Your task to perform on an android device: Open Yahoo.com Image 0: 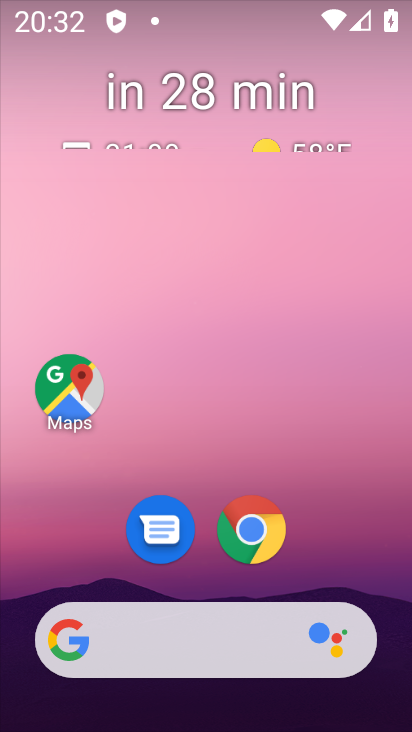
Step 0: click (246, 537)
Your task to perform on an android device: Open Yahoo.com Image 1: 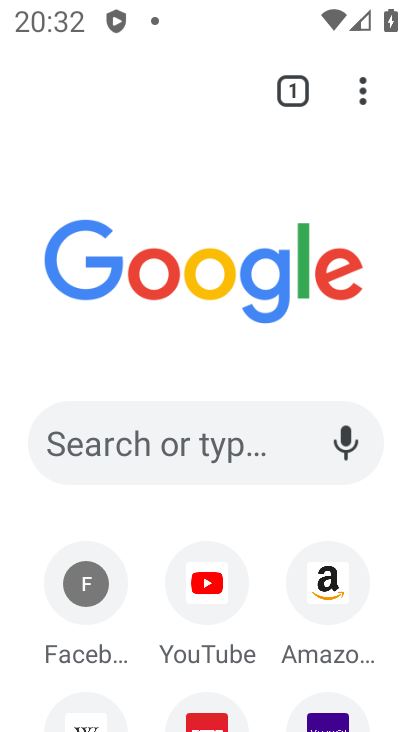
Step 1: click (320, 711)
Your task to perform on an android device: Open Yahoo.com Image 2: 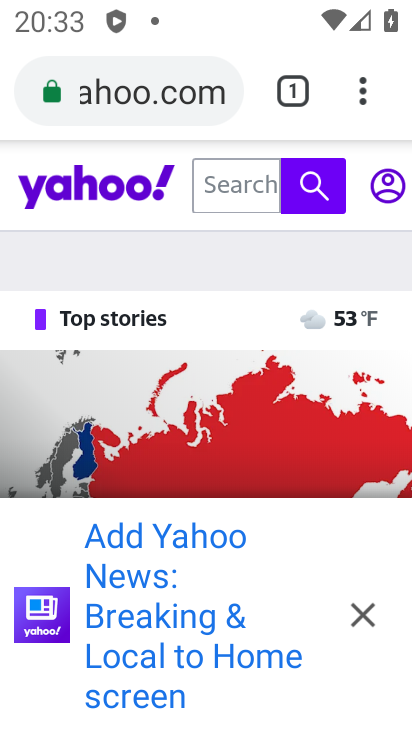
Step 2: task complete